Your task to perform on an android device: toggle sleep mode Image 0: 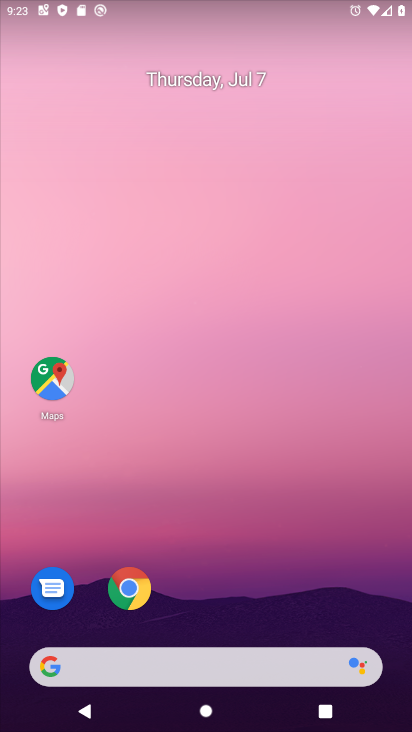
Step 0: drag from (208, 628) to (228, 25)
Your task to perform on an android device: toggle sleep mode Image 1: 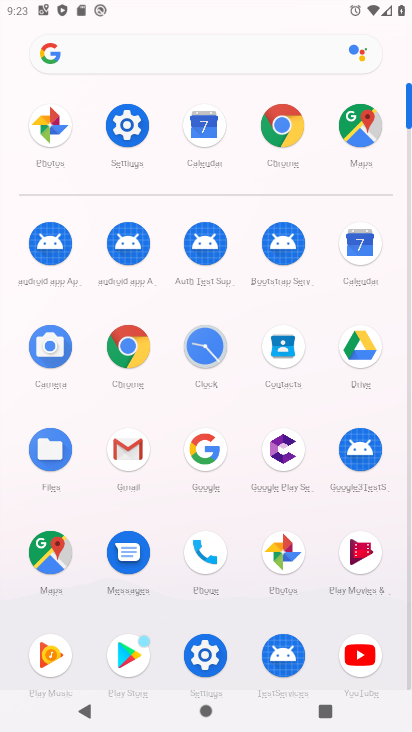
Step 1: click (123, 120)
Your task to perform on an android device: toggle sleep mode Image 2: 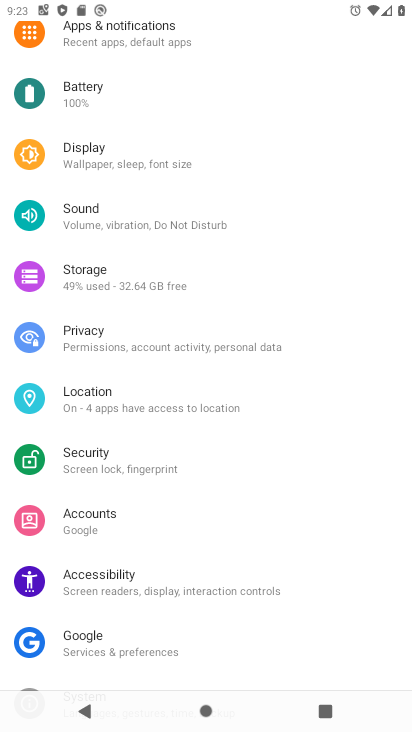
Step 2: click (112, 145)
Your task to perform on an android device: toggle sleep mode Image 3: 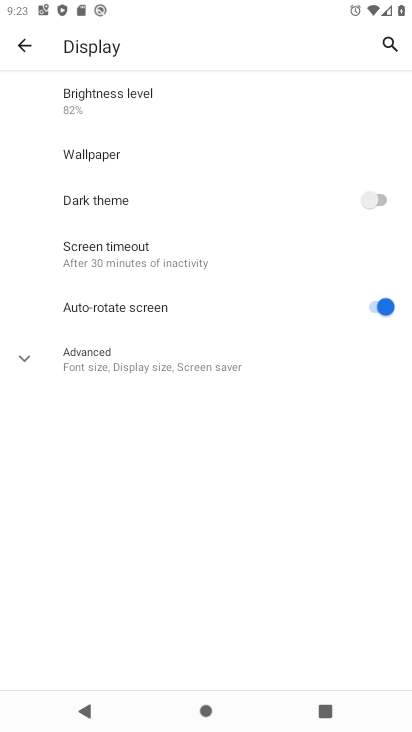
Step 3: click (41, 351)
Your task to perform on an android device: toggle sleep mode Image 4: 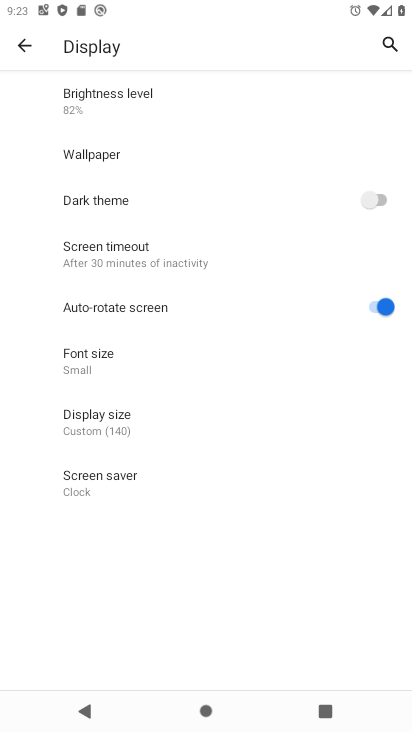
Step 4: task complete